Your task to perform on an android device: What's the weather going to be tomorrow? Image 0: 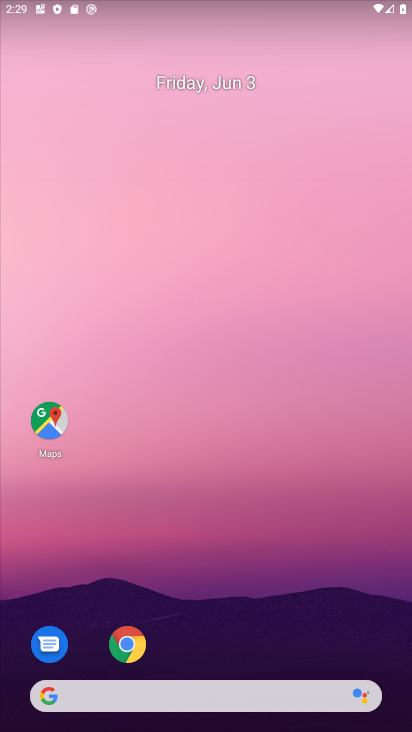
Step 0: drag from (231, 638) to (231, 186)
Your task to perform on an android device: What's the weather going to be tomorrow? Image 1: 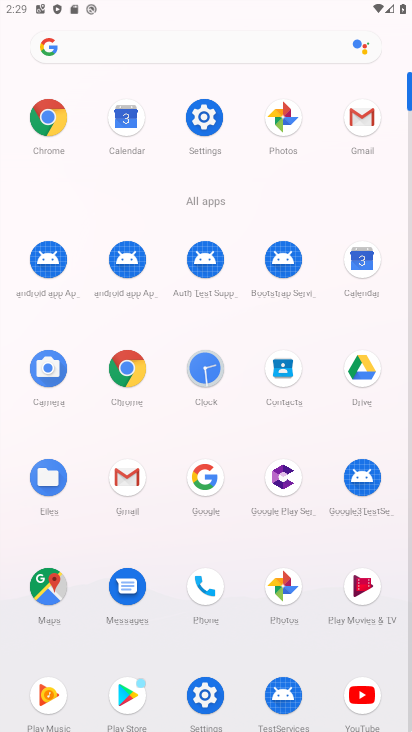
Step 1: click (195, 473)
Your task to perform on an android device: What's the weather going to be tomorrow? Image 2: 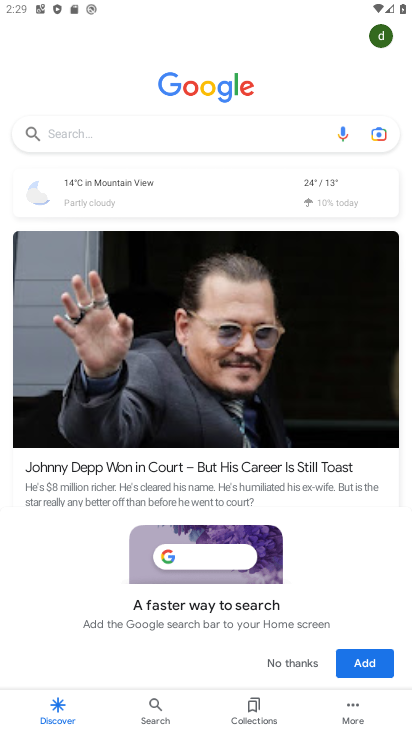
Step 2: click (193, 201)
Your task to perform on an android device: What's the weather going to be tomorrow? Image 3: 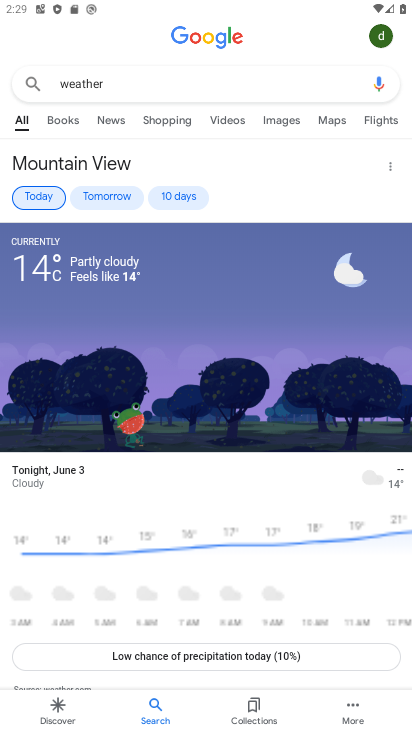
Step 3: click (130, 190)
Your task to perform on an android device: What's the weather going to be tomorrow? Image 4: 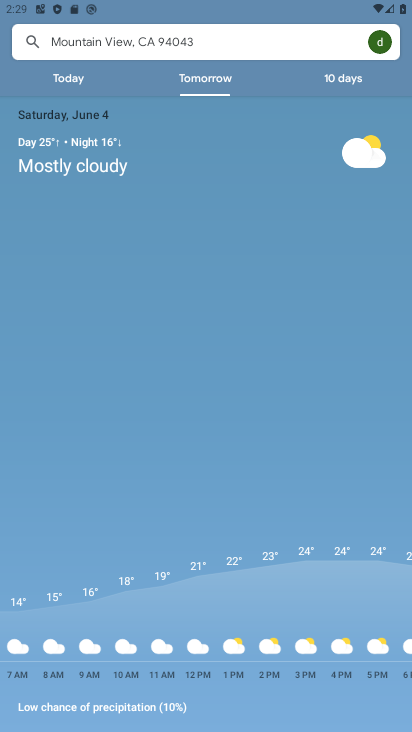
Step 4: task complete